Your task to perform on an android device: Go to Yahoo.com Image 0: 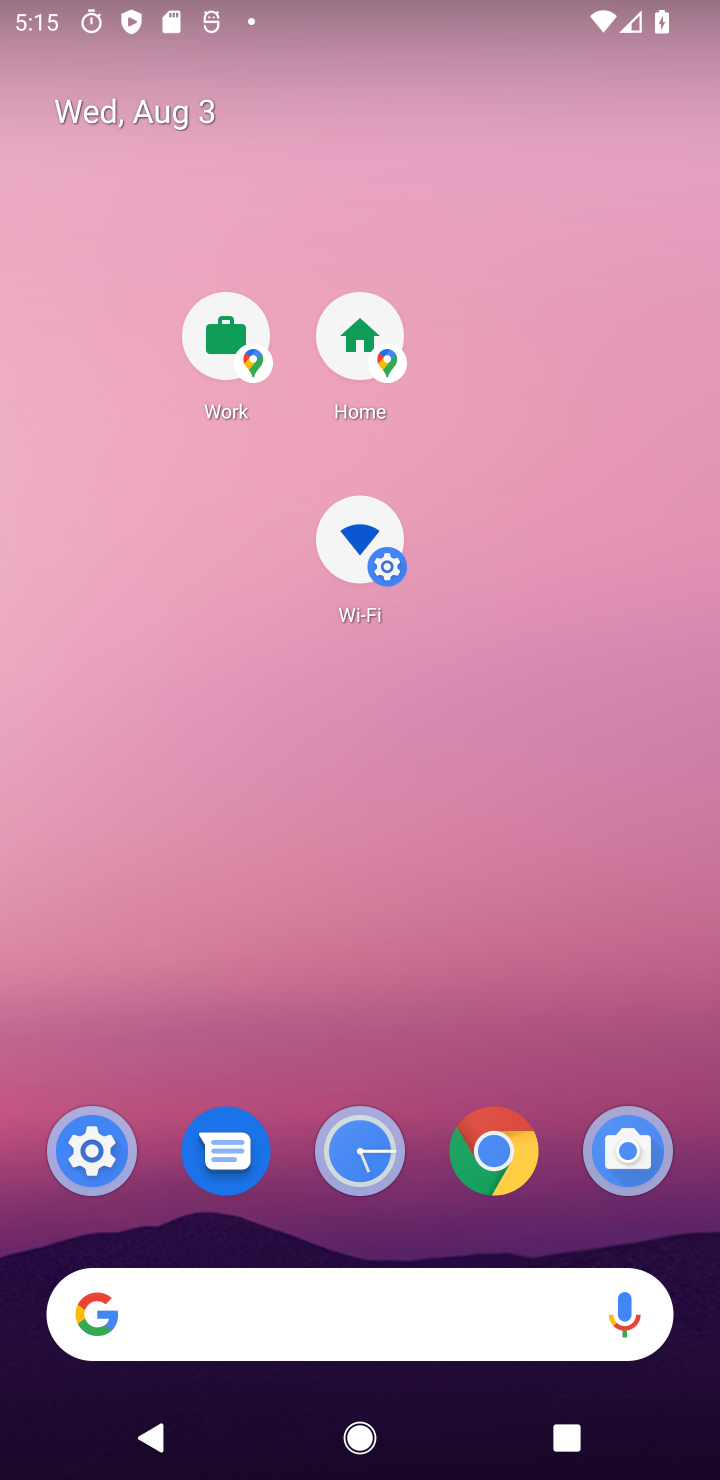
Step 0: drag from (501, 1399) to (384, 515)
Your task to perform on an android device: Go to Yahoo.com Image 1: 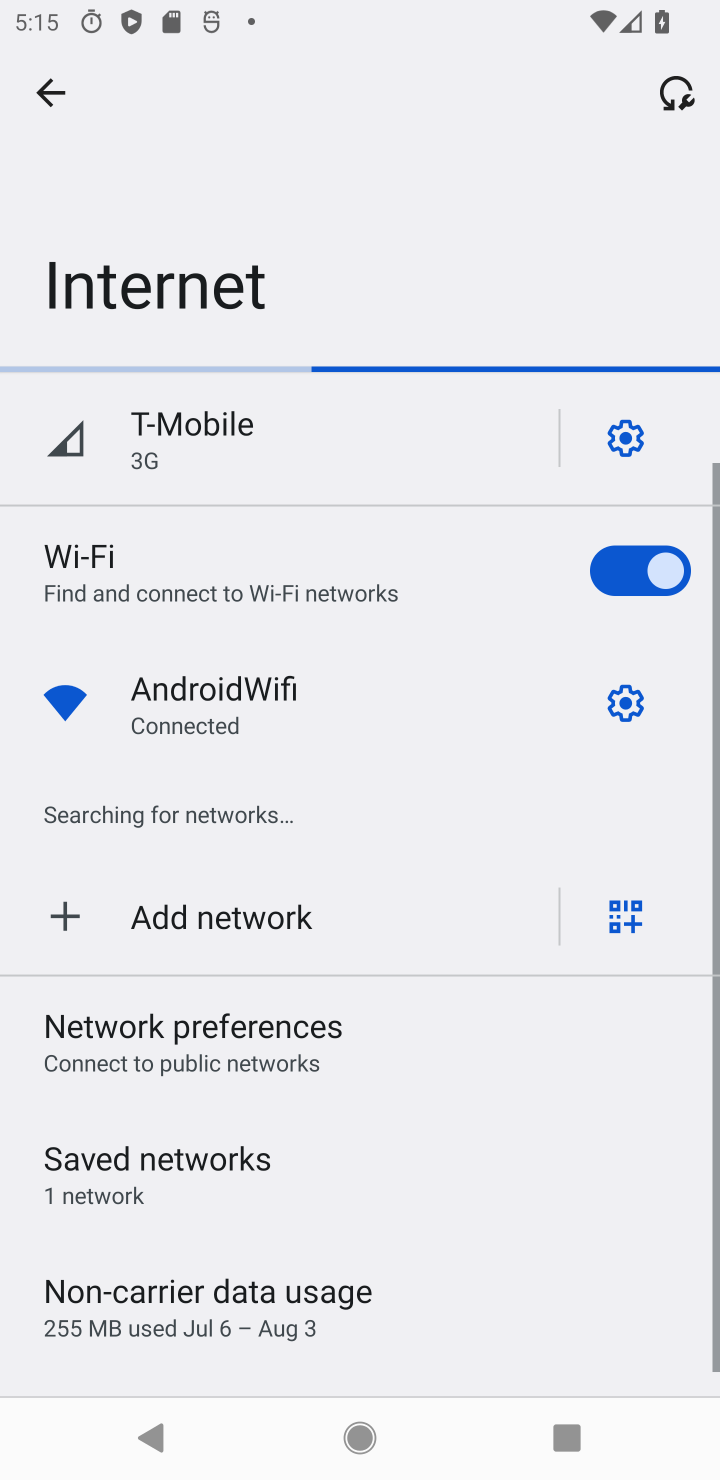
Step 1: click (24, 82)
Your task to perform on an android device: Go to Yahoo.com Image 2: 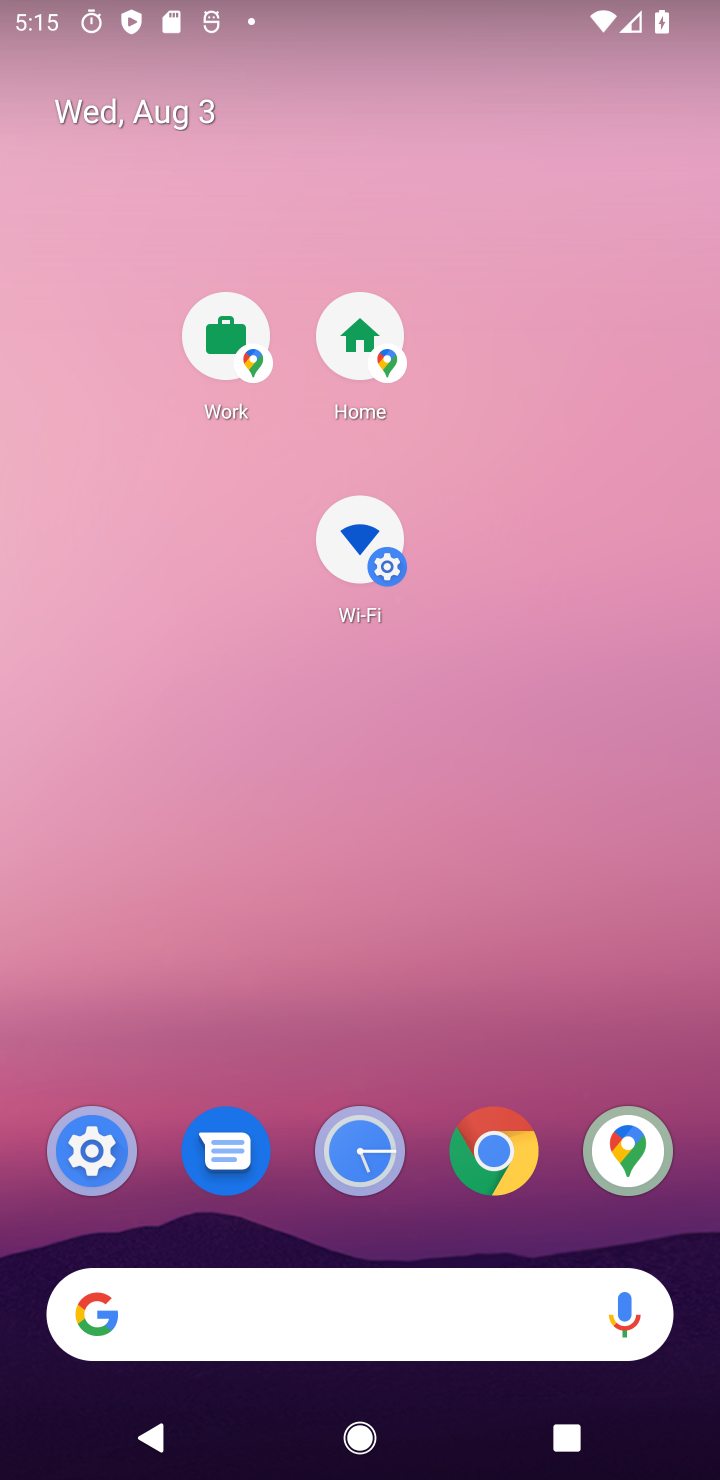
Step 2: drag from (488, 1335) to (340, 514)
Your task to perform on an android device: Go to Yahoo.com Image 3: 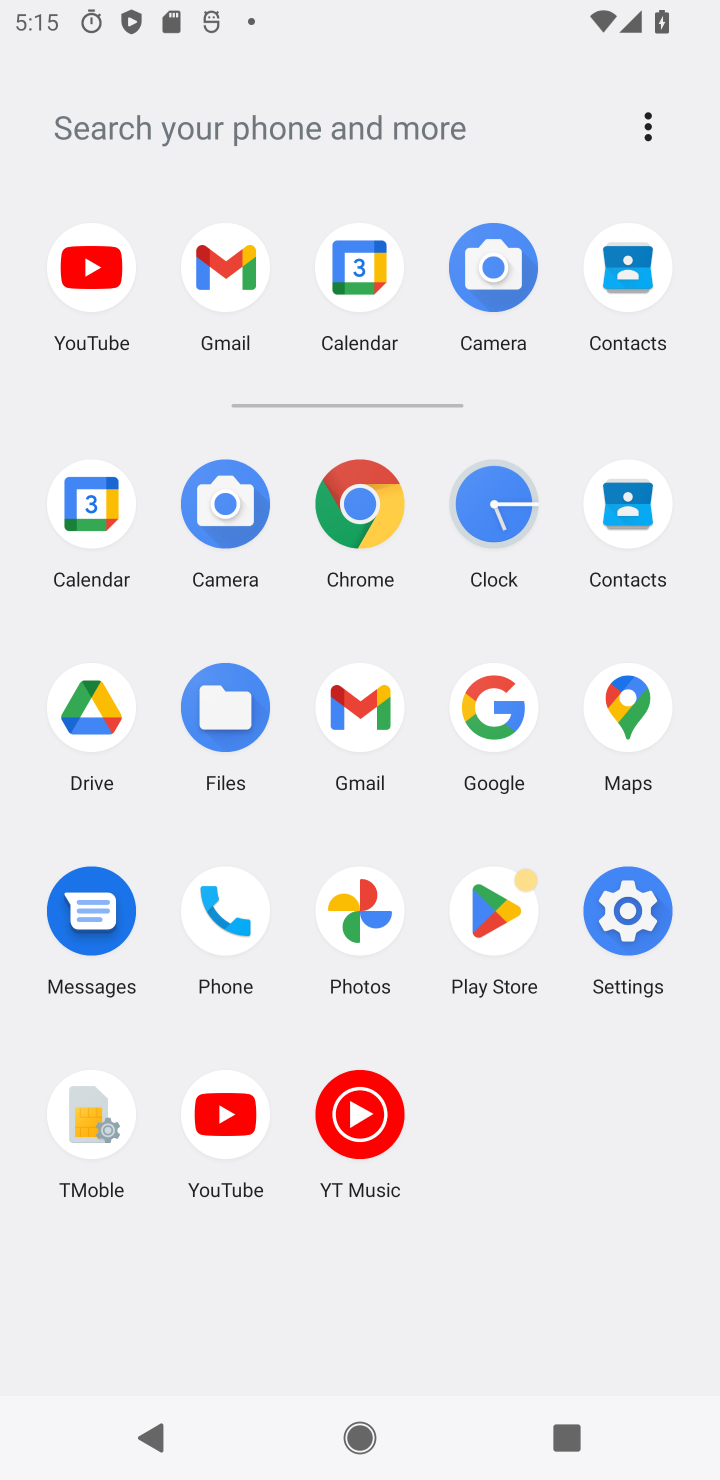
Step 3: click (346, 489)
Your task to perform on an android device: Go to Yahoo.com Image 4: 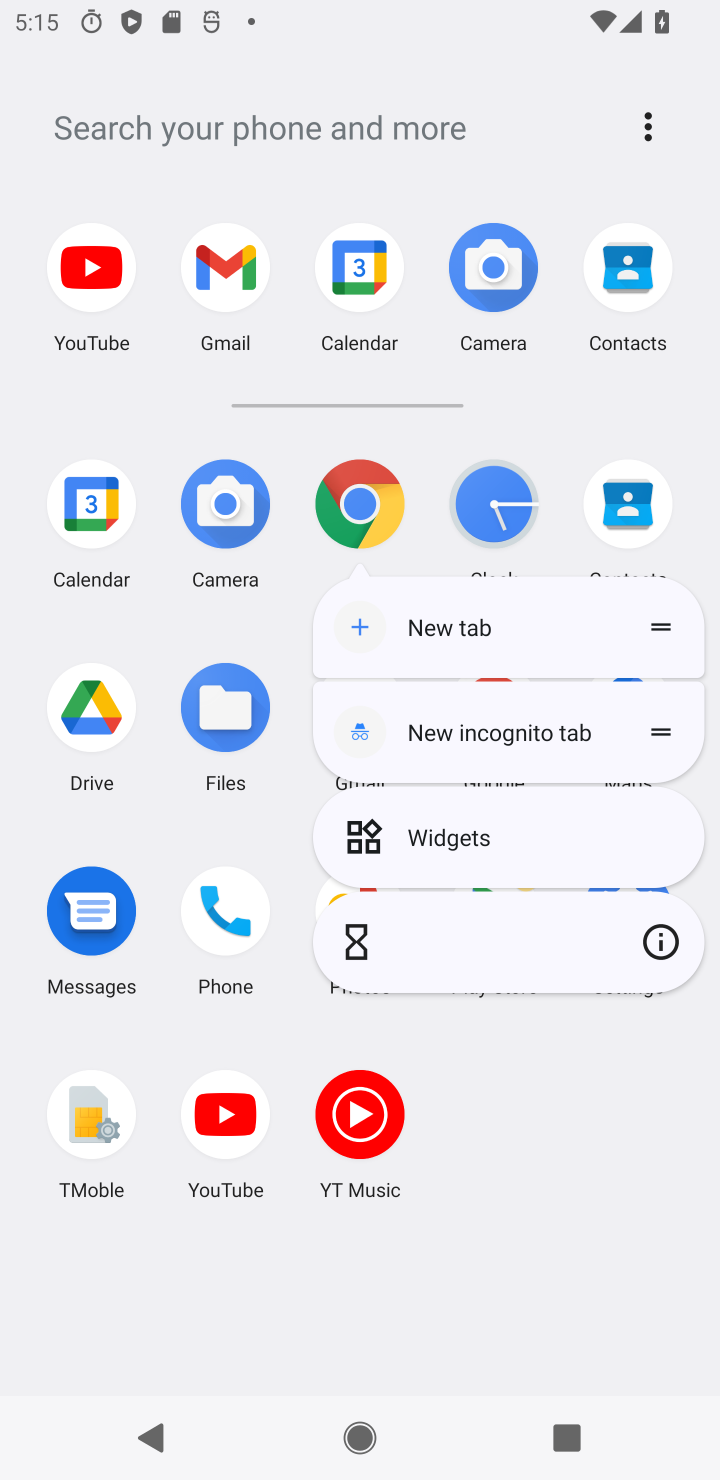
Step 4: click (355, 493)
Your task to perform on an android device: Go to Yahoo.com Image 5: 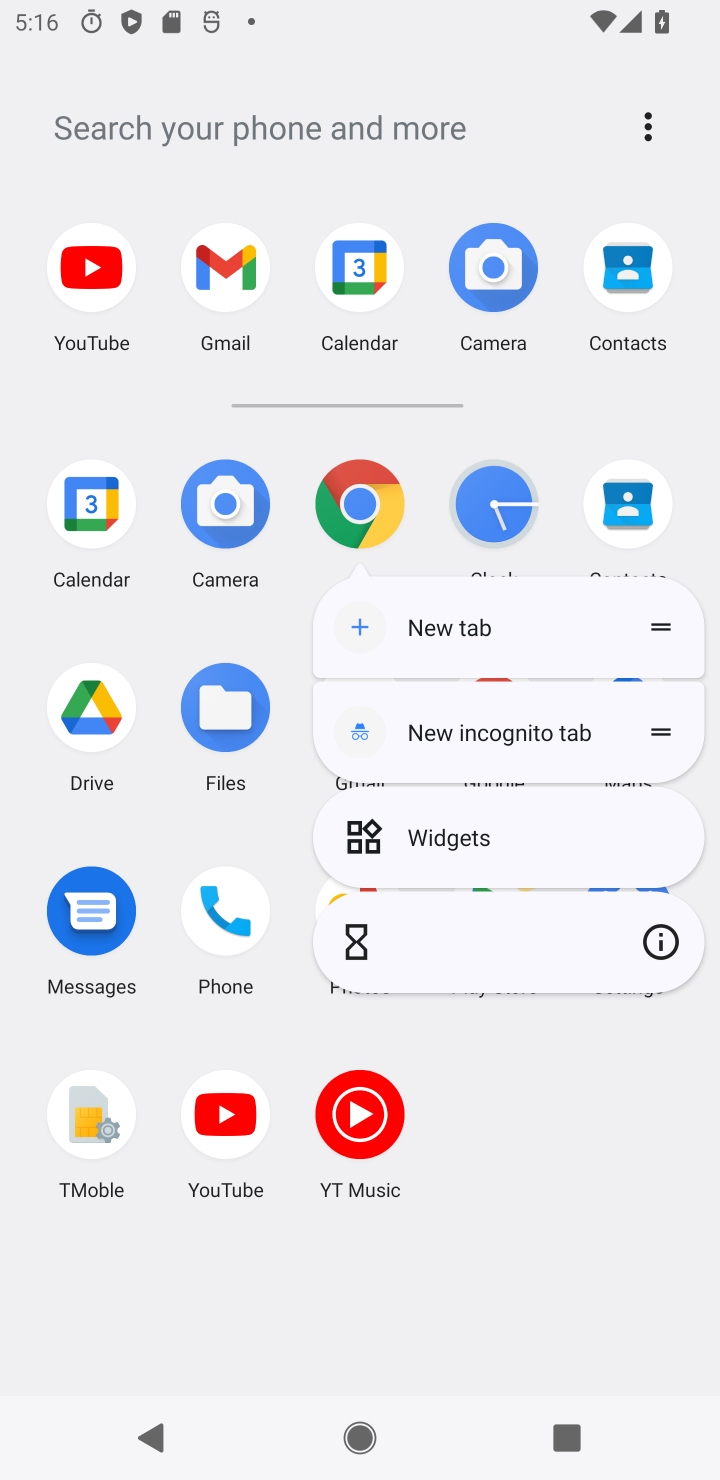
Step 5: click (356, 495)
Your task to perform on an android device: Go to Yahoo.com Image 6: 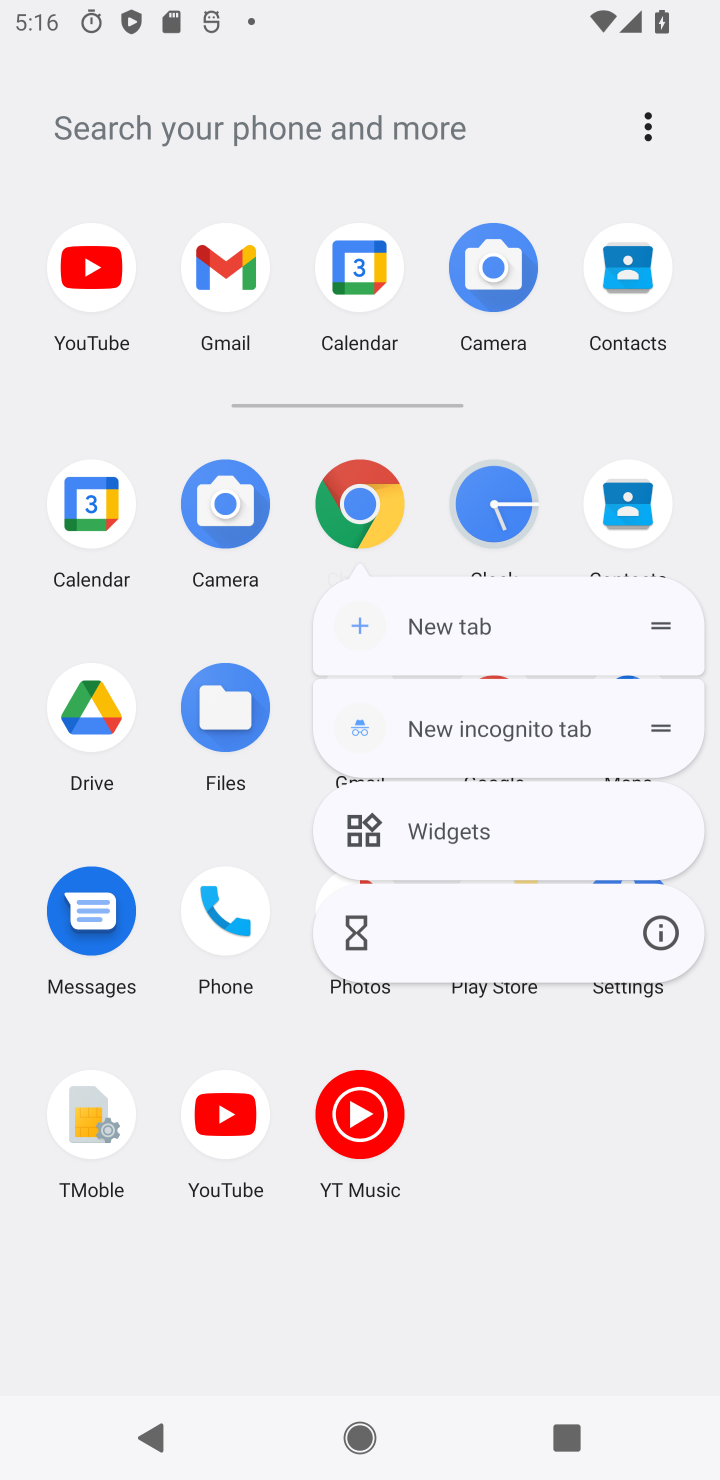
Step 6: click (356, 495)
Your task to perform on an android device: Go to Yahoo.com Image 7: 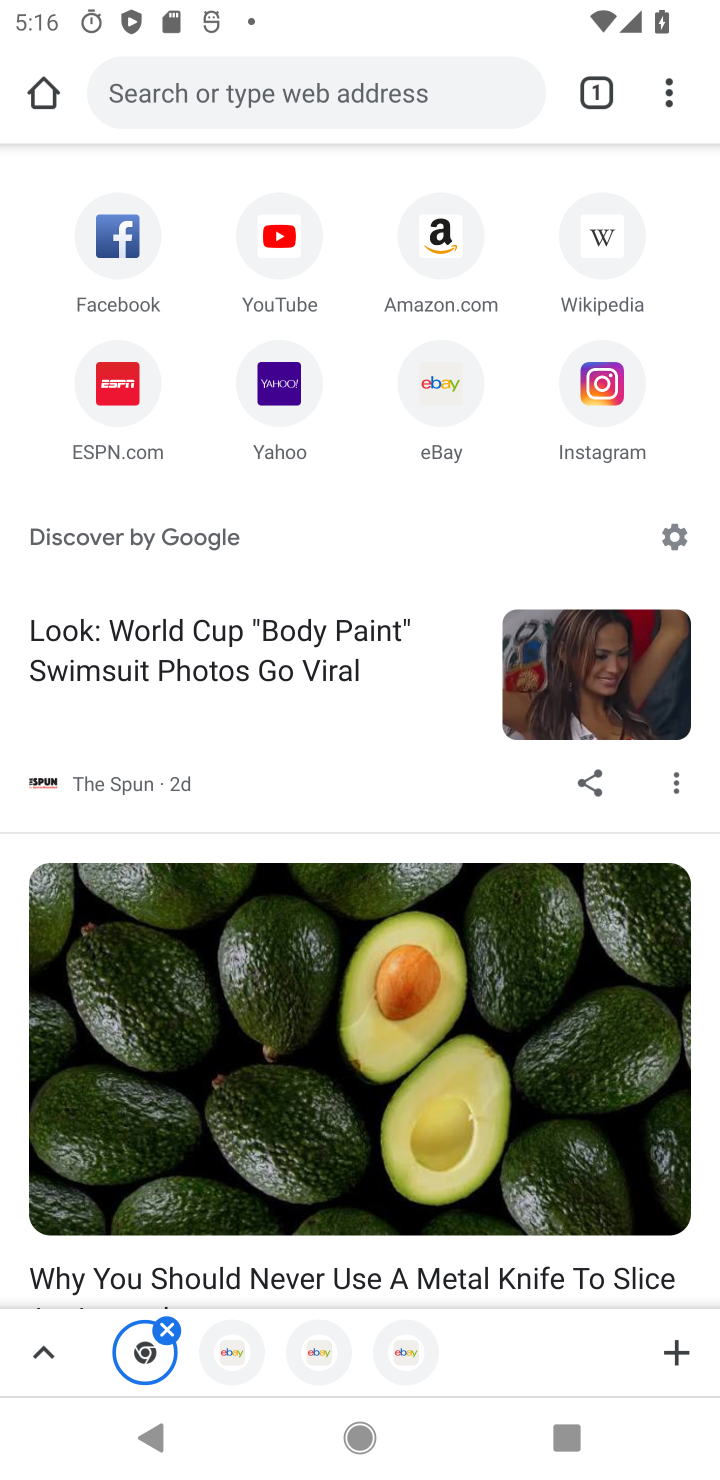
Step 7: click (263, 363)
Your task to perform on an android device: Go to Yahoo.com Image 8: 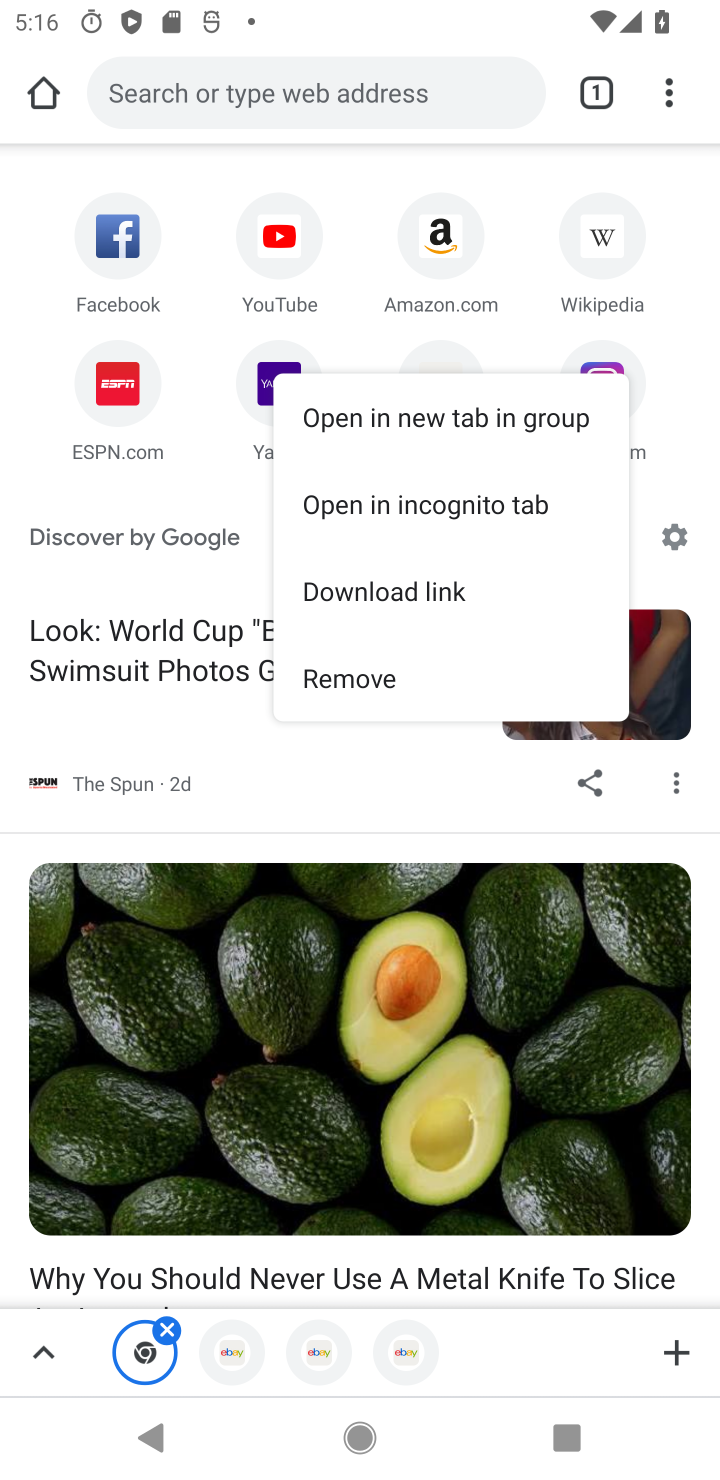
Step 8: click (406, 434)
Your task to perform on an android device: Go to Yahoo.com Image 9: 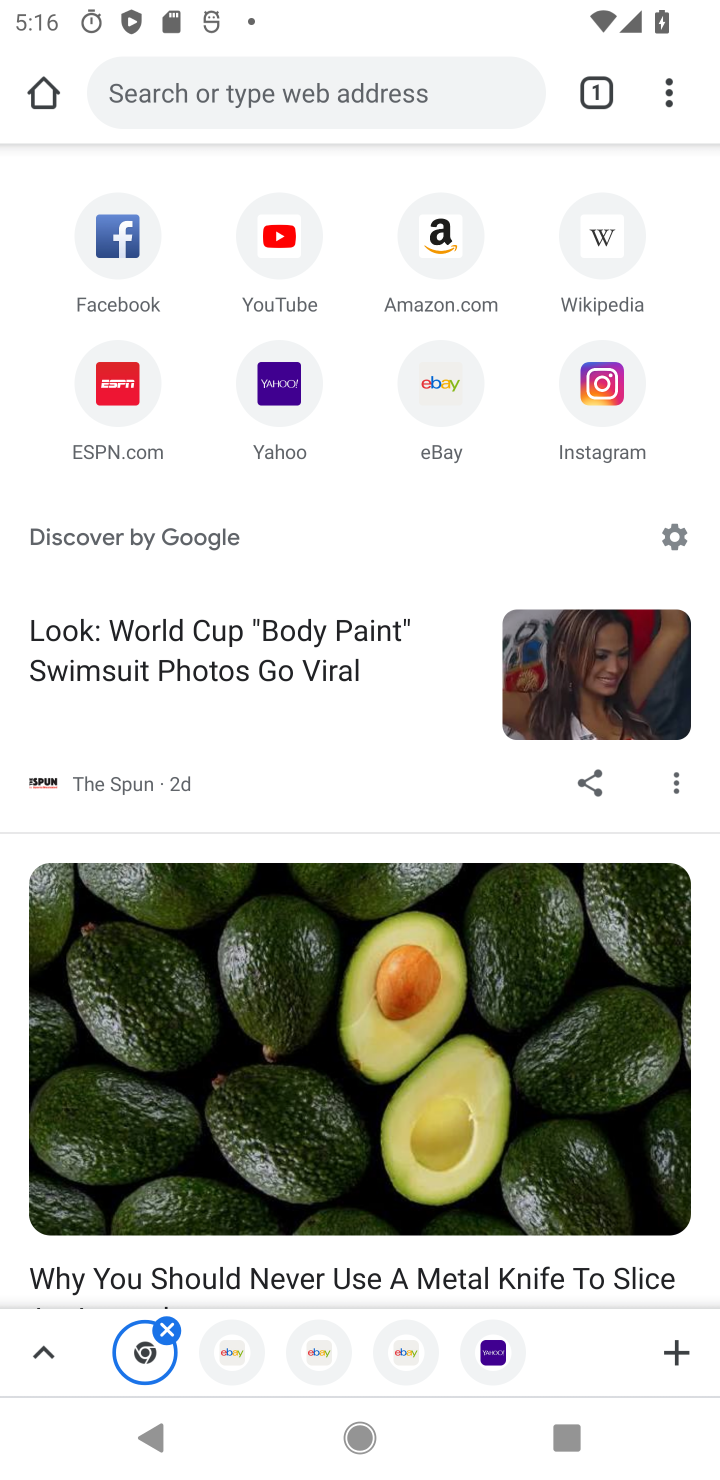
Step 9: click (408, 436)
Your task to perform on an android device: Go to Yahoo.com Image 10: 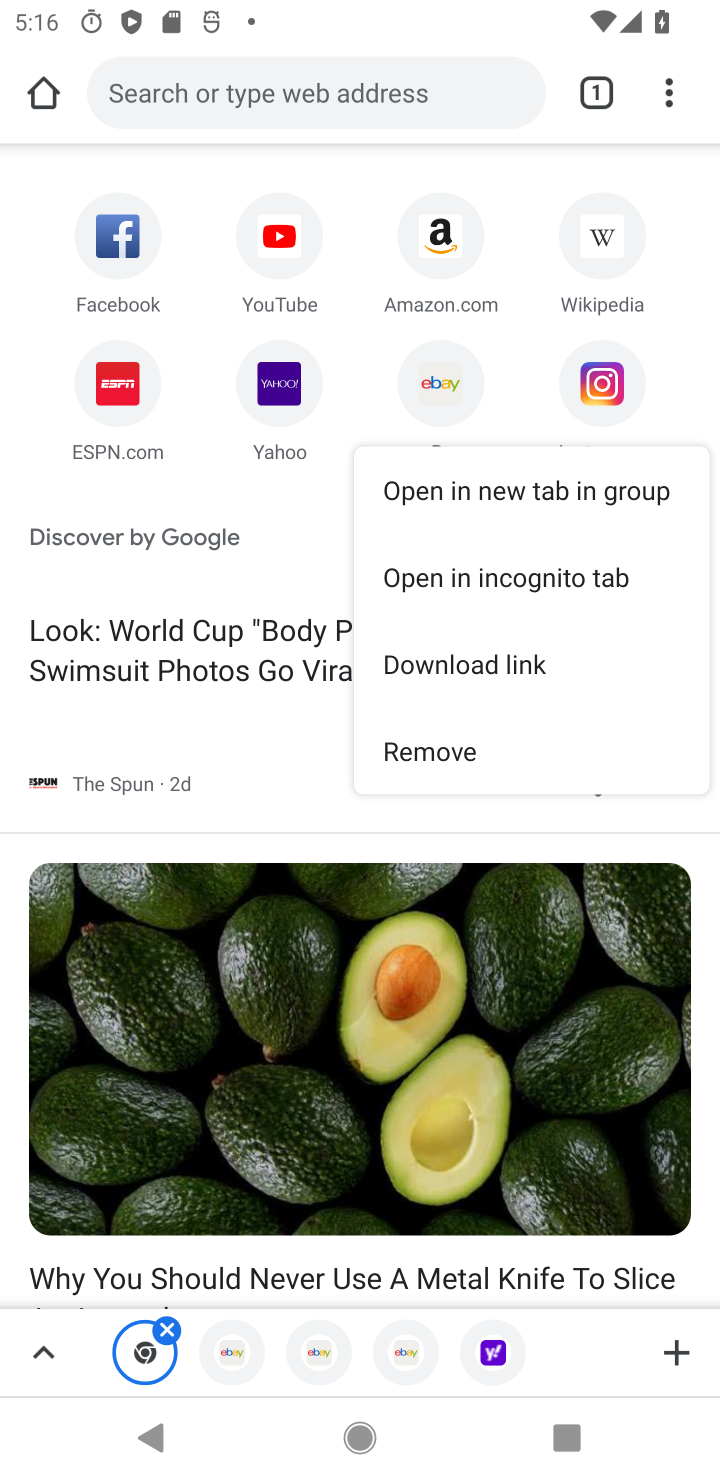
Step 10: click (460, 468)
Your task to perform on an android device: Go to Yahoo.com Image 11: 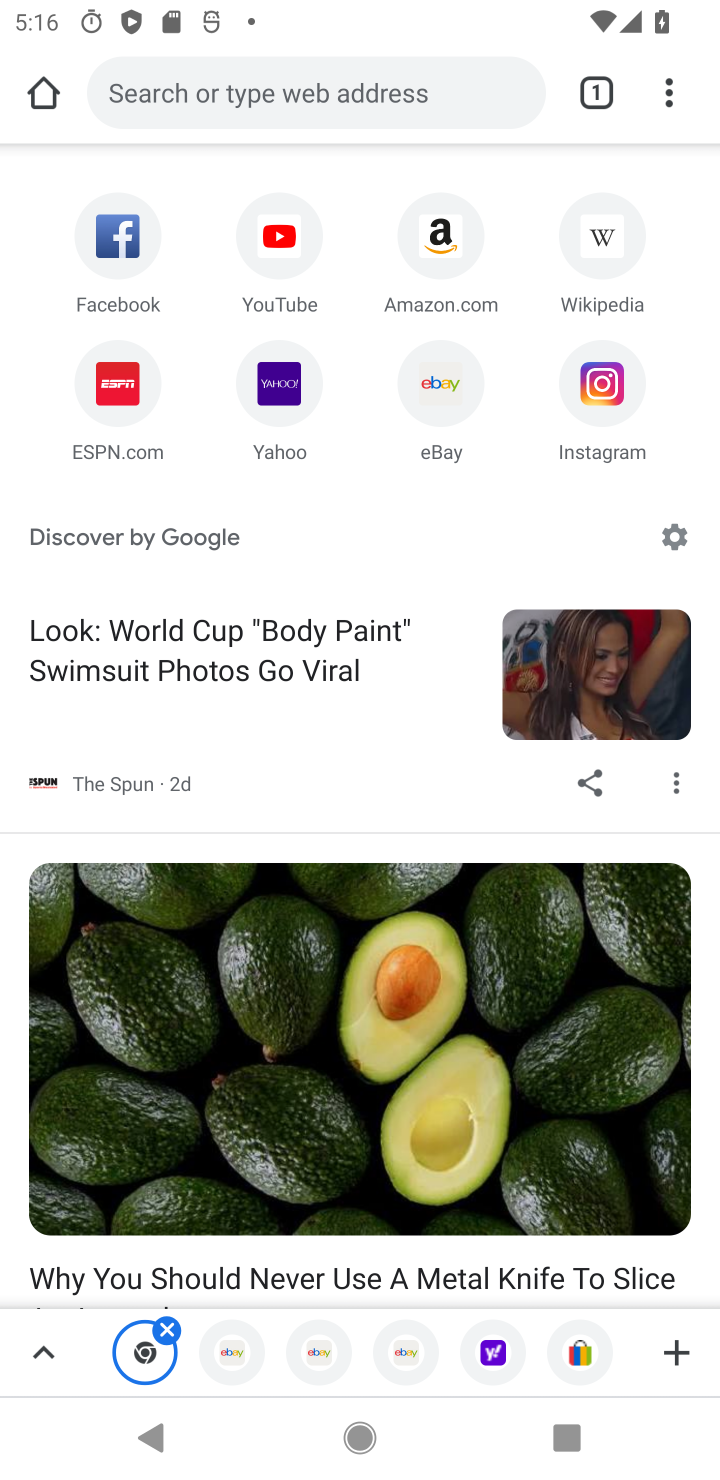
Step 11: click (288, 400)
Your task to perform on an android device: Go to Yahoo.com Image 12: 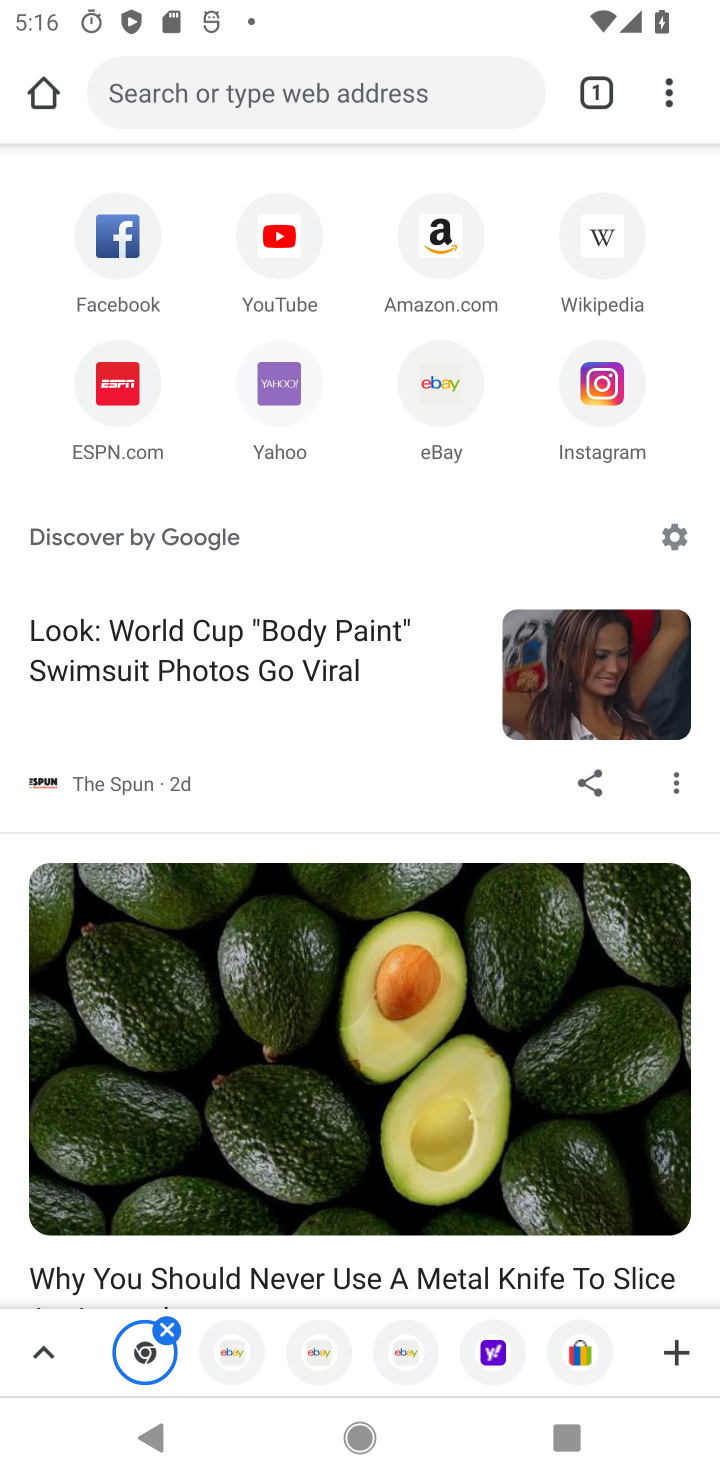
Step 12: click (288, 413)
Your task to perform on an android device: Go to Yahoo.com Image 13: 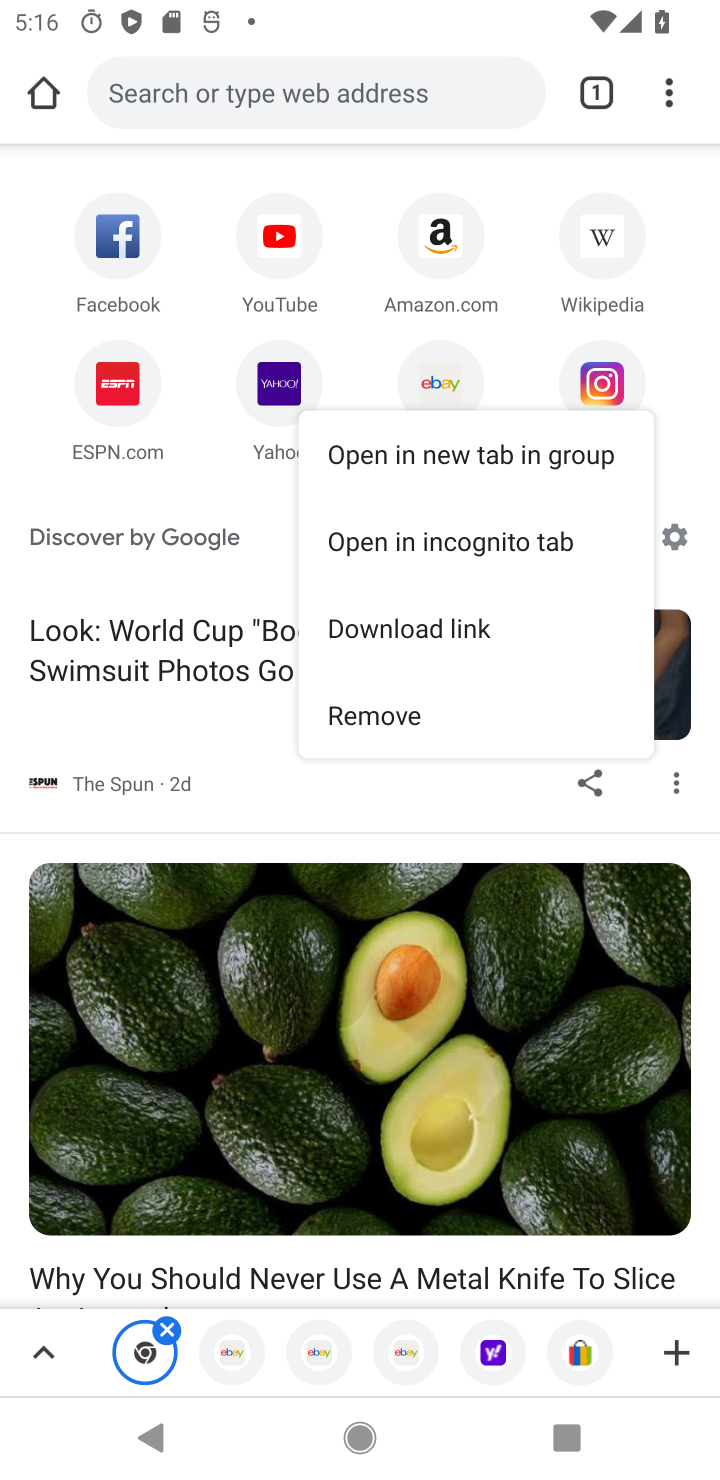
Step 13: drag from (423, 460) to (542, 451)
Your task to perform on an android device: Go to Yahoo.com Image 14: 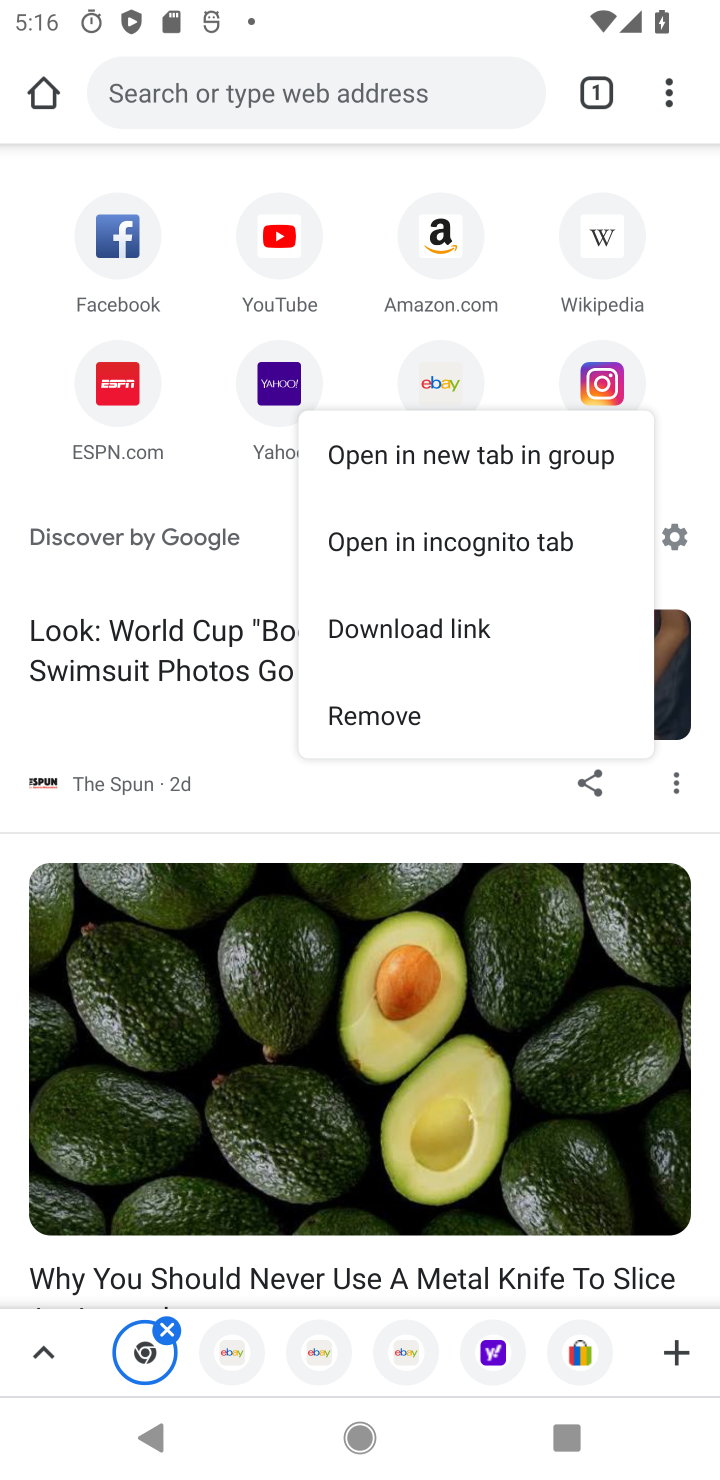
Step 14: click (543, 445)
Your task to perform on an android device: Go to Yahoo.com Image 15: 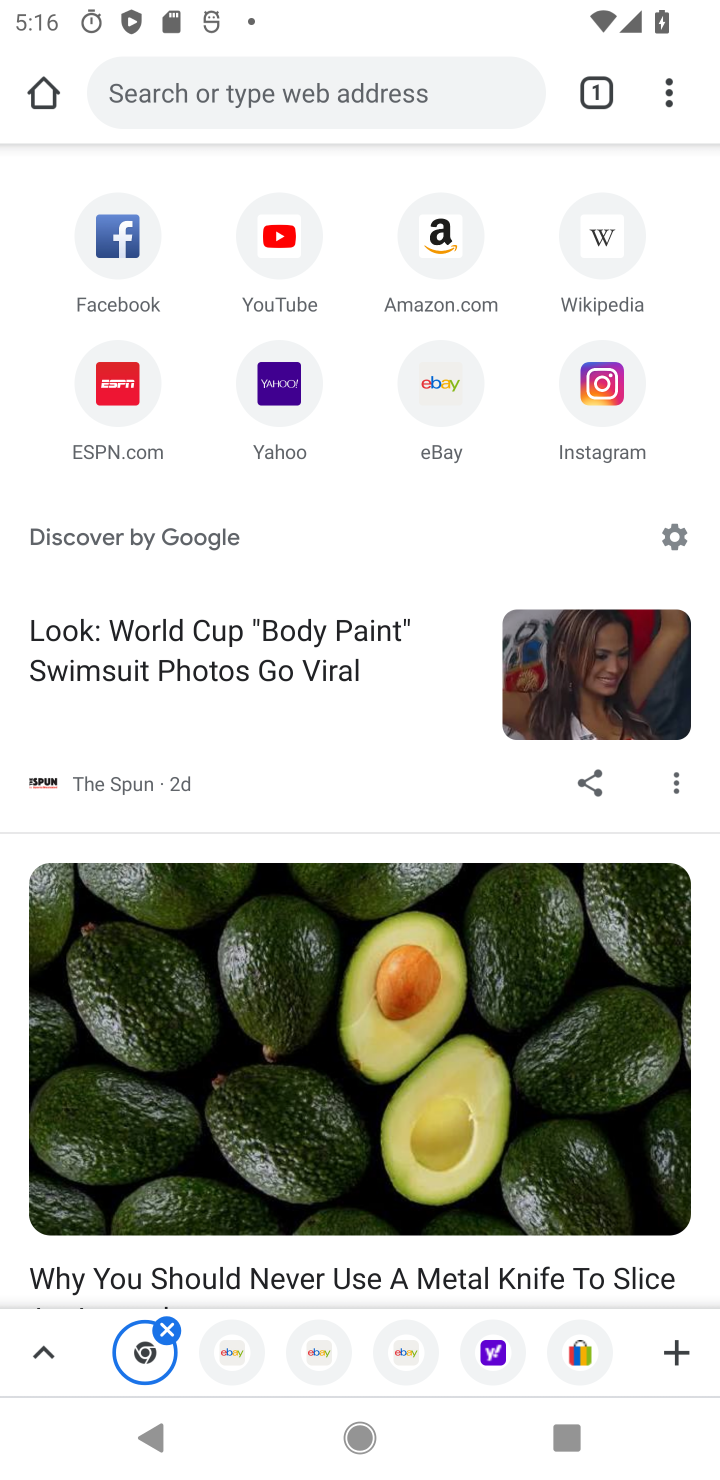
Step 15: click (264, 376)
Your task to perform on an android device: Go to Yahoo.com Image 16: 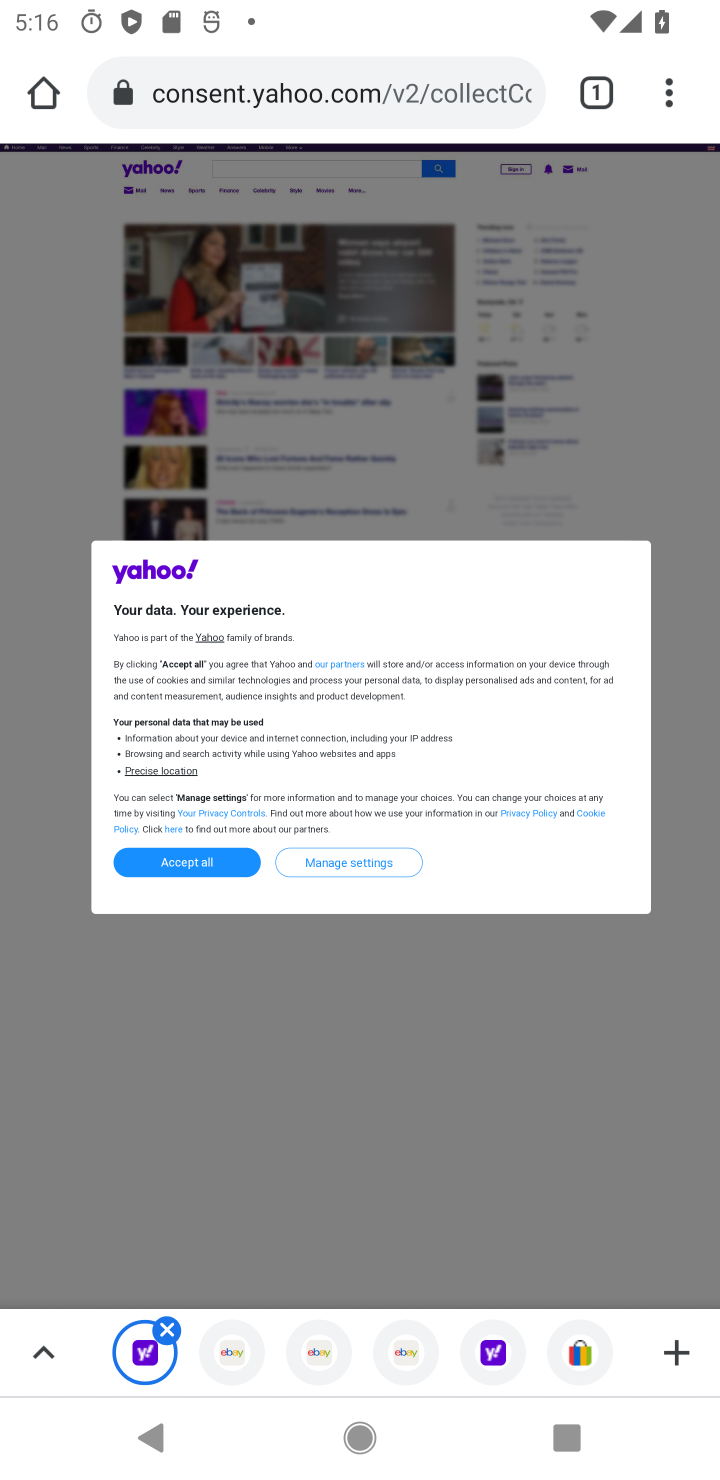
Step 16: task complete